Your task to perform on an android device: turn off data saver in the chrome app Image 0: 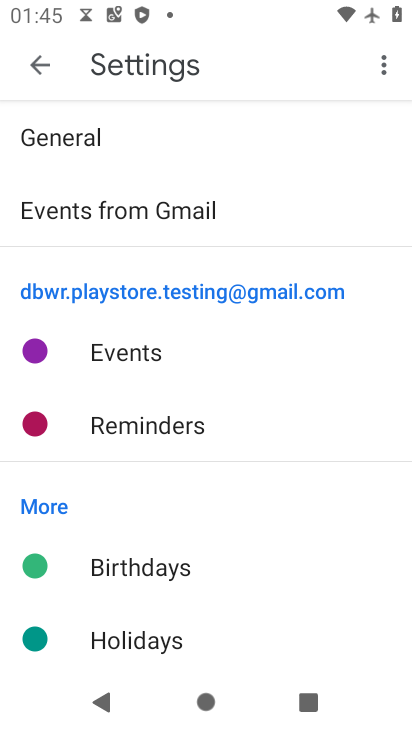
Step 0: press home button
Your task to perform on an android device: turn off data saver in the chrome app Image 1: 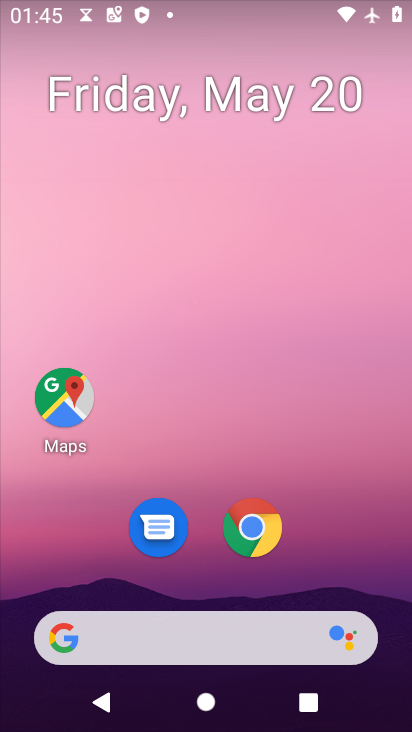
Step 1: click (262, 542)
Your task to perform on an android device: turn off data saver in the chrome app Image 2: 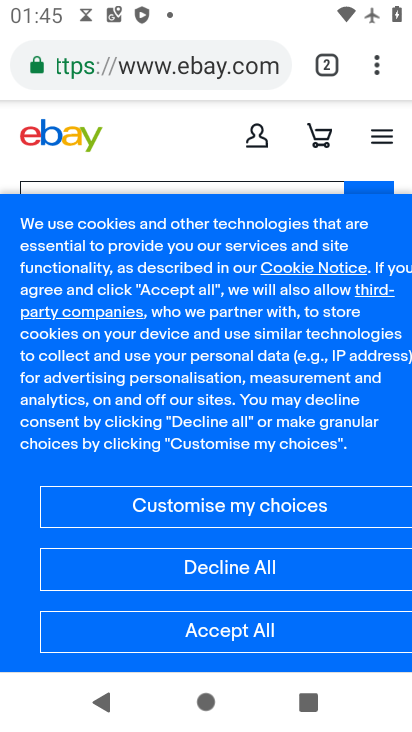
Step 2: drag from (378, 69) to (271, 583)
Your task to perform on an android device: turn off data saver in the chrome app Image 3: 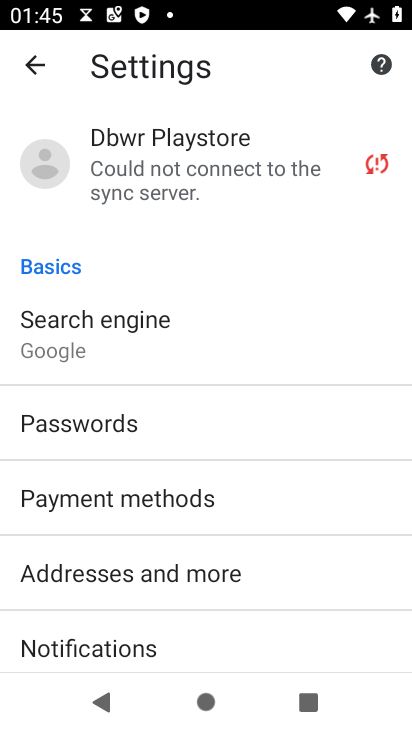
Step 3: drag from (229, 641) to (339, 172)
Your task to perform on an android device: turn off data saver in the chrome app Image 4: 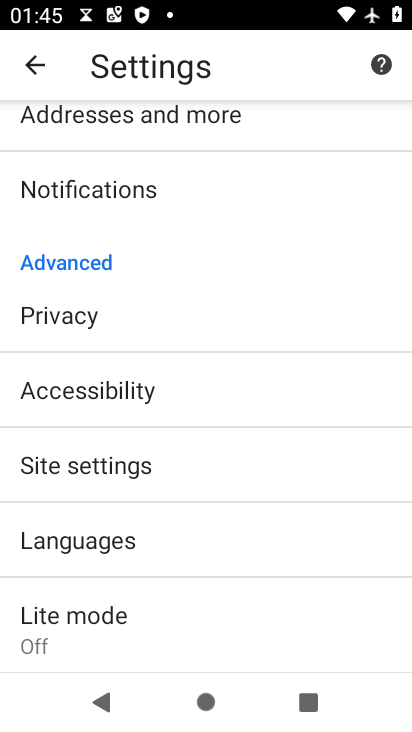
Step 4: click (106, 636)
Your task to perform on an android device: turn off data saver in the chrome app Image 5: 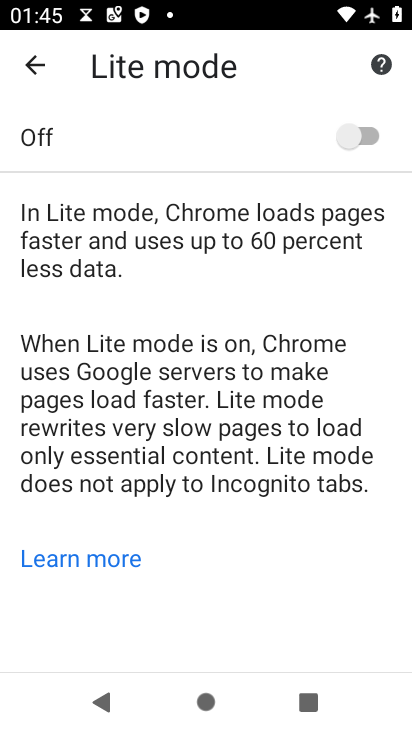
Step 5: task complete